Your task to perform on an android device: make emails show in primary in the gmail app Image 0: 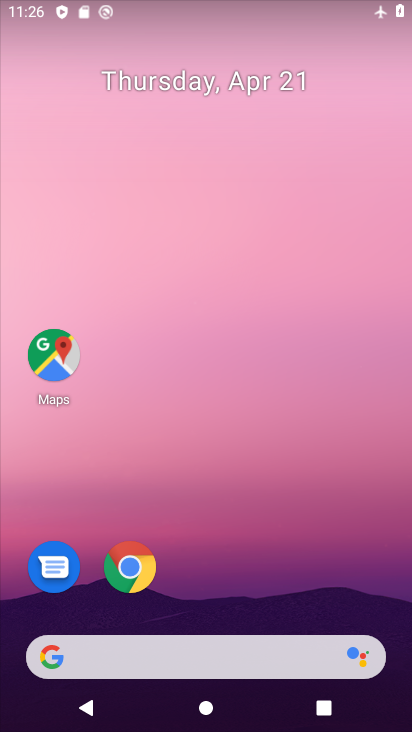
Step 0: drag from (365, 552) to (376, 152)
Your task to perform on an android device: make emails show in primary in the gmail app Image 1: 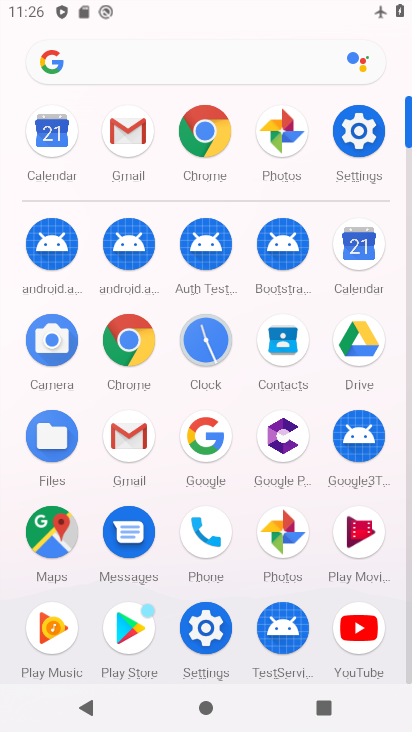
Step 1: click (136, 454)
Your task to perform on an android device: make emails show in primary in the gmail app Image 2: 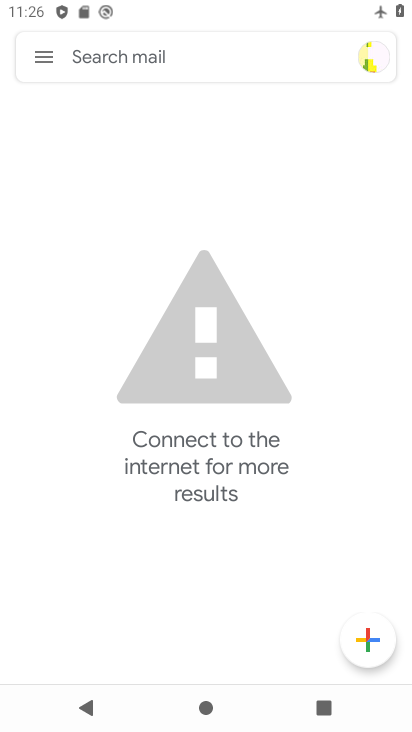
Step 2: click (52, 54)
Your task to perform on an android device: make emails show in primary in the gmail app Image 3: 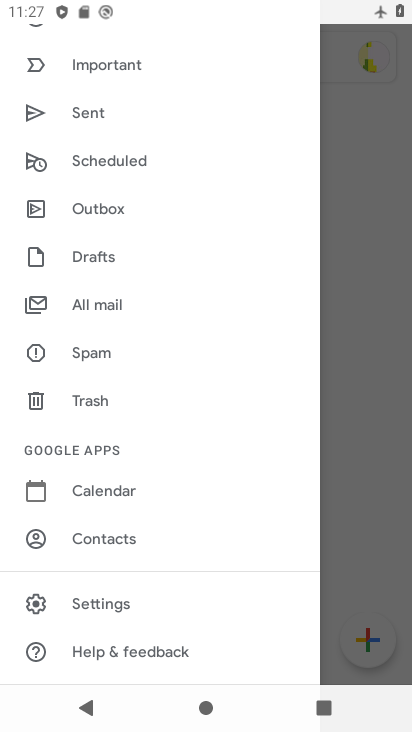
Step 3: click (107, 607)
Your task to perform on an android device: make emails show in primary in the gmail app Image 4: 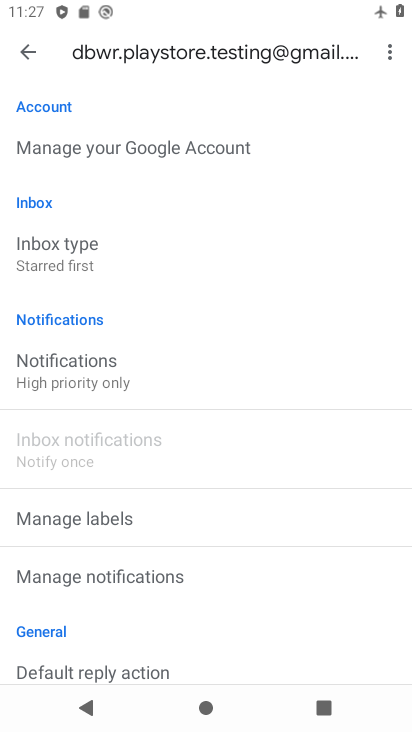
Step 4: click (63, 266)
Your task to perform on an android device: make emails show in primary in the gmail app Image 5: 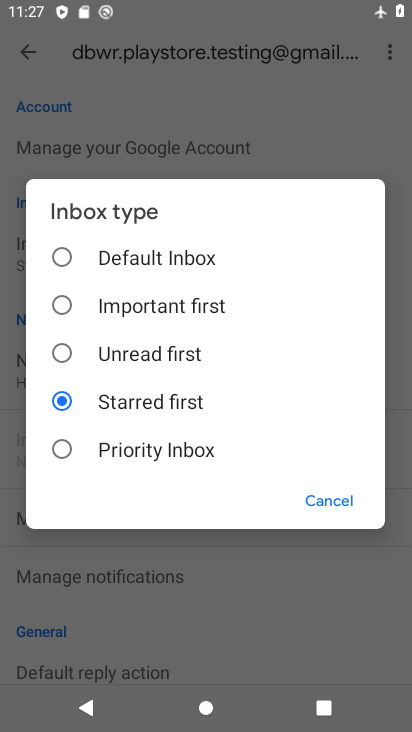
Step 5: click (67, 450)
Your task to perform on an android device: make emails show in primary in the gmail app Image 6: 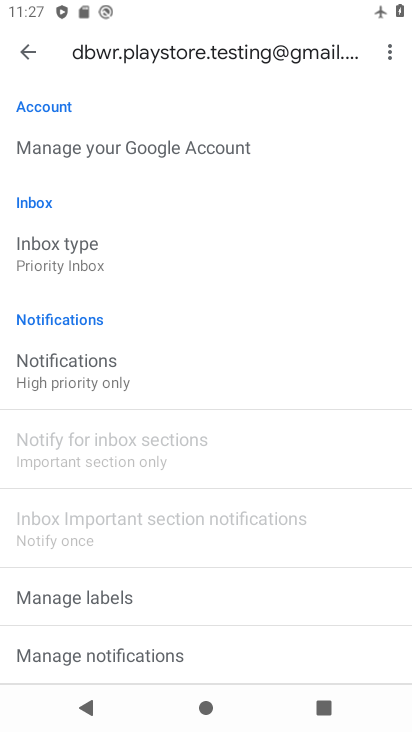
Step 6: task complete